Your task to perform on an android device: Open internet settings Image 0: 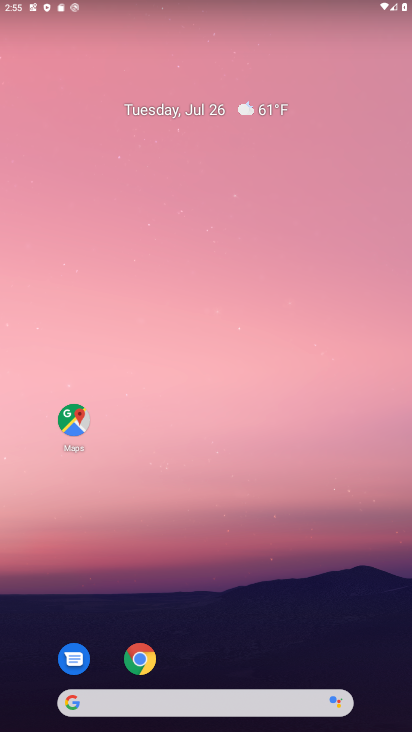
Step 0: drag from (206, 585) to (227, 246)
Your task to perform on an android device: Open internet settings Image 1: 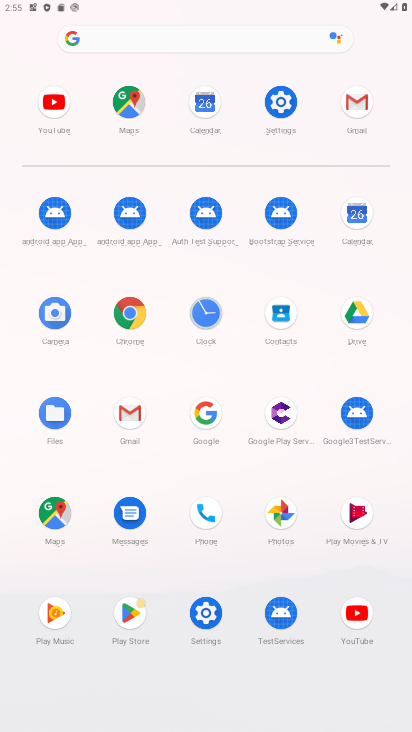
Step 1: click (279, 112)
Your task to perform on an android device: Open internet settings Image 2: 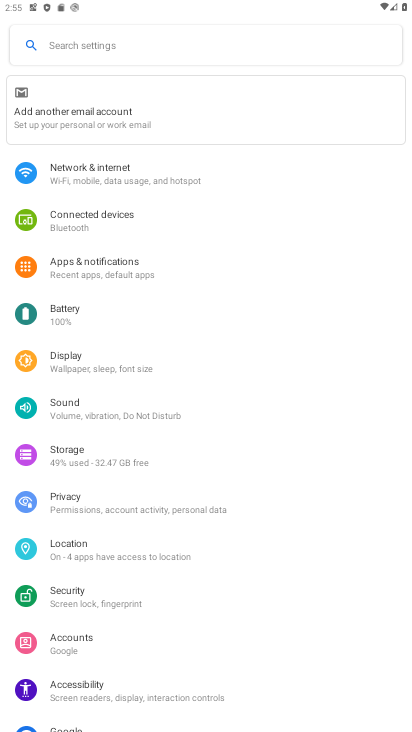
Step 2: click (106, 181)
Your task to perform on an android device: Open internet settings Image 3: 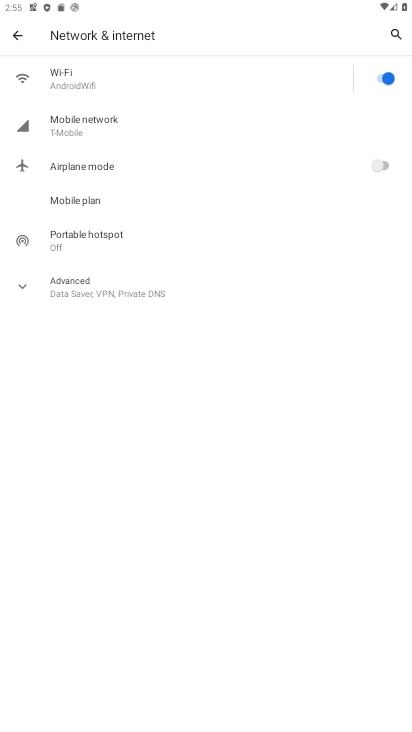
Step 3: task complete